Your task to perform on an android device: move an email to a new category in the gmail app Image 0: 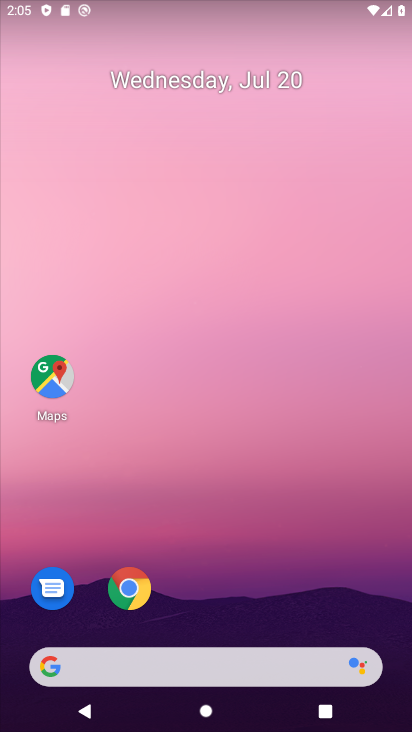
Step 0: drag from (263, 598) to (254, 111)
Your task to perform on an android device: move an email to a new category in the gmail app Image 1: 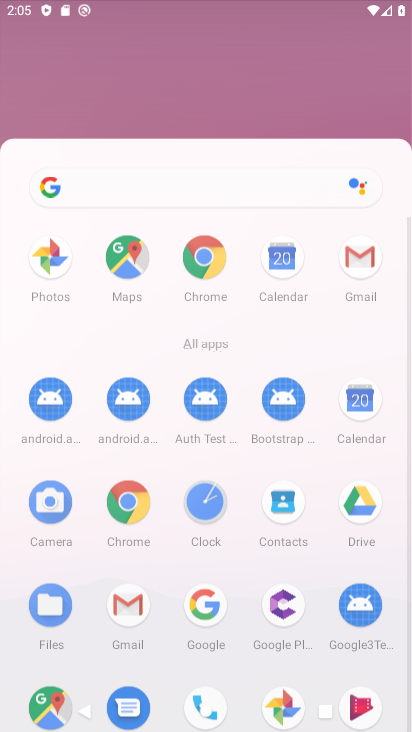
Step 1: drag from (218, 463) to (228, 105)
Your task to perform on an android device: move an email to a new category in the gmail app Image 2: 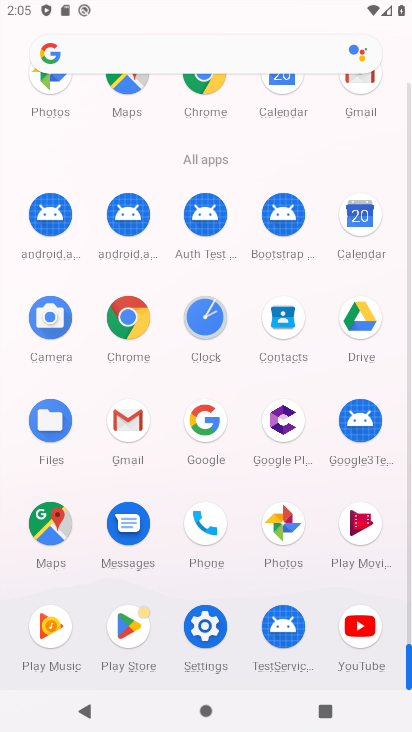
Step 2: click (123, 431)
Your task to perform on an android device: move an email to a new category in the gmail app Image 3: 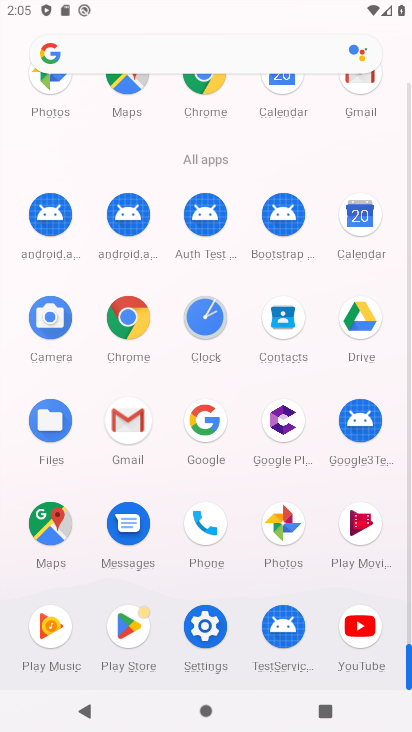
Step 3: click (136, 420)
Your task to perform on an android device: move an email to a new category in the gmail app Image 4: 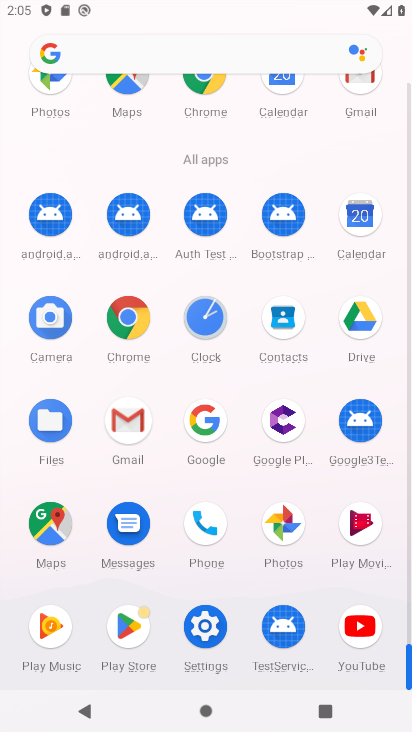
Step 4: click (137, 420)
Your task to perform on an android device: move an email to a new category in the gmail app Image 5: 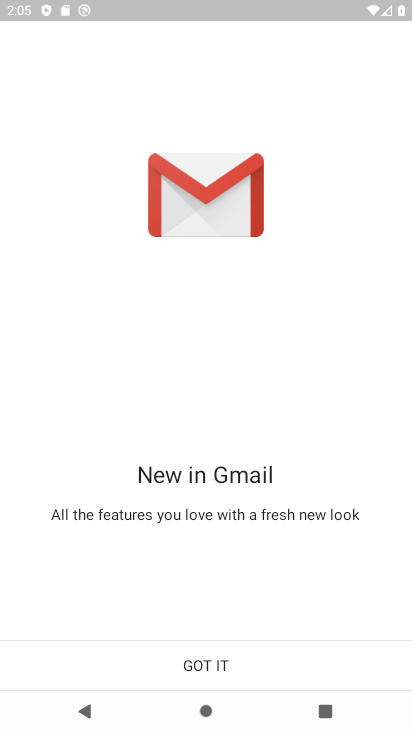
Step 5: click (209, 661)
Your task to perform on an android device: move an email to a new category in the gmail app Image 6: 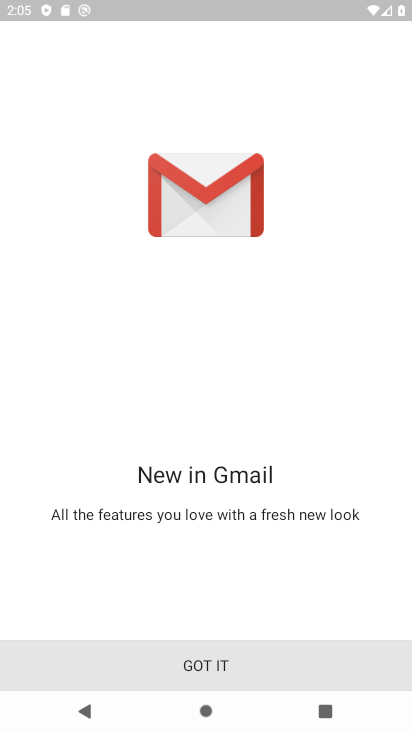
Step 6: click (209, 661)
Your task to perform on an android device: move an email to a new category in the gmail app Image 7: 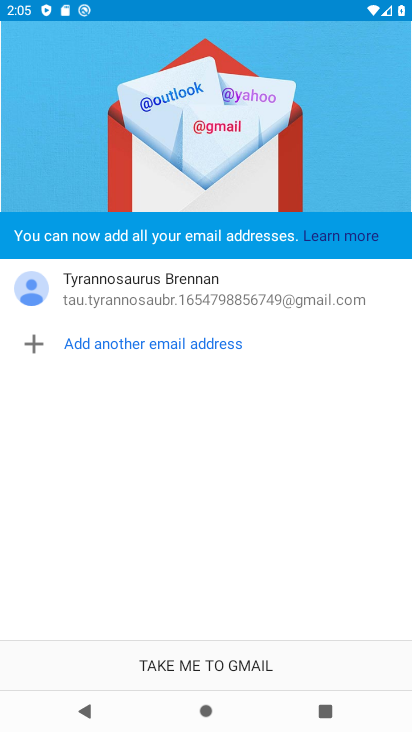
Step 7: click (201, 663)
Your task to perform on an android device: move an email to a new category in the gmail app Image 8: 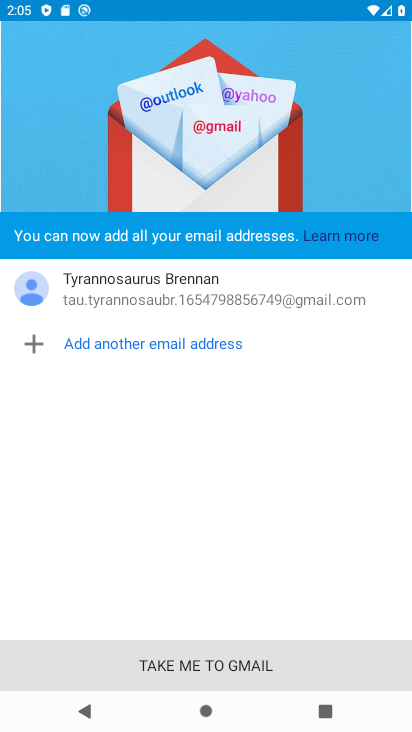
Step 8: click (204, 663)
Your task to perform on an android device: move an email to a new category in the gmail app Image 9: 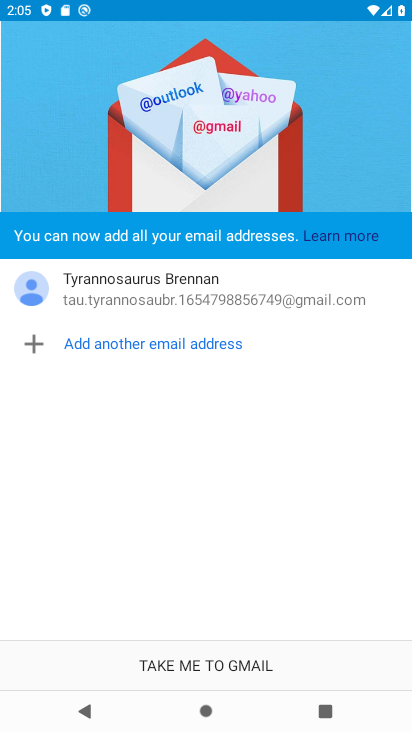
Step 9: click (234, 671)
Your task to perform on an android device: move an email to a new category in the gmail app Image 10: 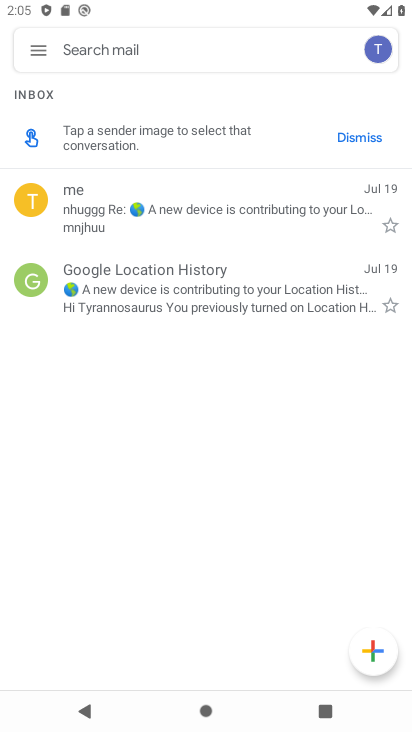
Step 10: click (383, 225)
Your task to perform on an android device: move an email to a new category in the gmail app Image 11: 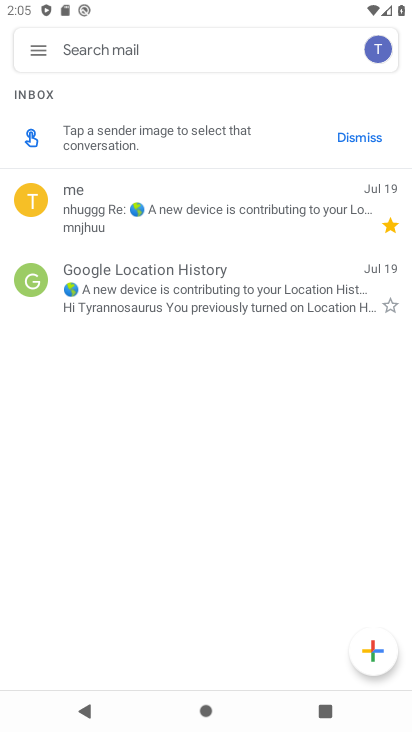
Step 11: task complete